Your task to perform on an android device: check storage Image 0: 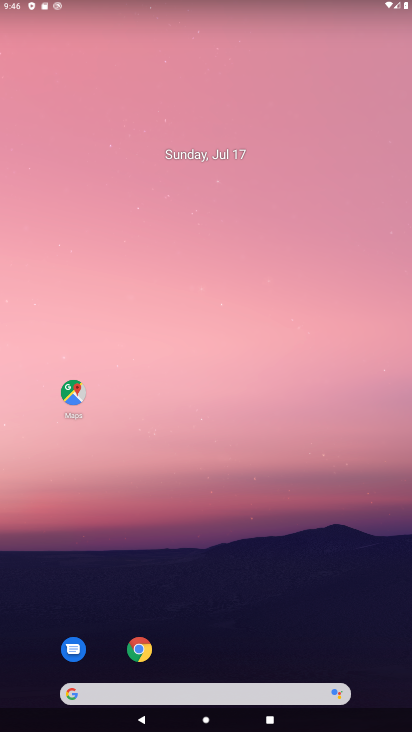
Step 0: drag from (14, 690) to (168, 224)
Your task to perform on an android device: check storage Image 1: 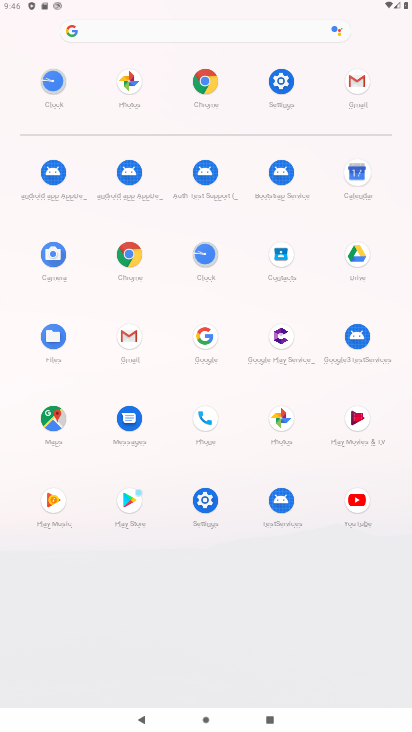
Step 1: click (210, 506)
Your task to perform on an android device: check storage Image 2: 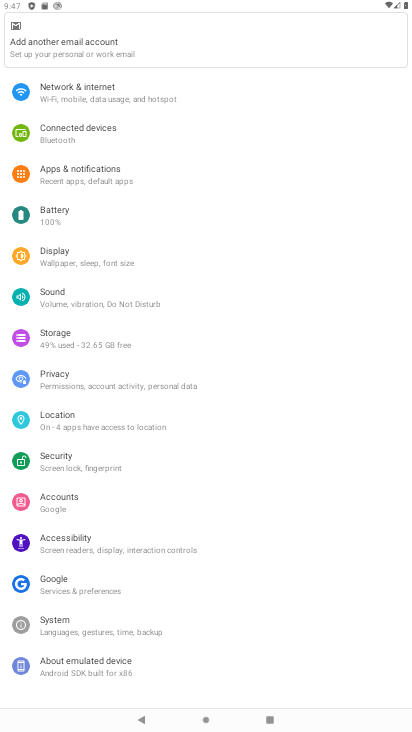
Step 2: click (85, 338)
Your task to perform on an android device: check storage Image 3: 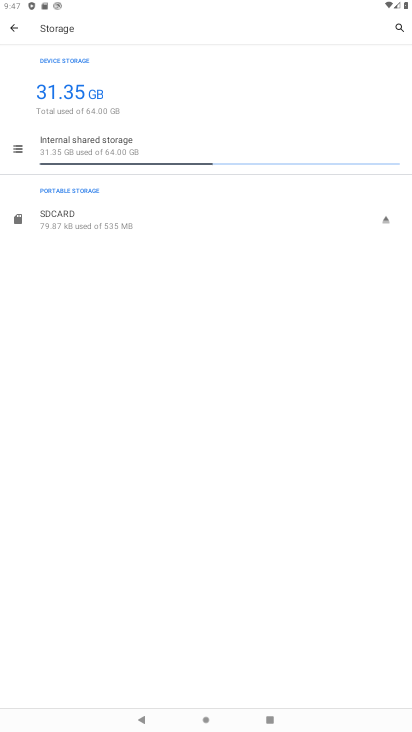
Step 3: task complete